Your task to perform on an android device: allow cookies in the chrome app Image 0: 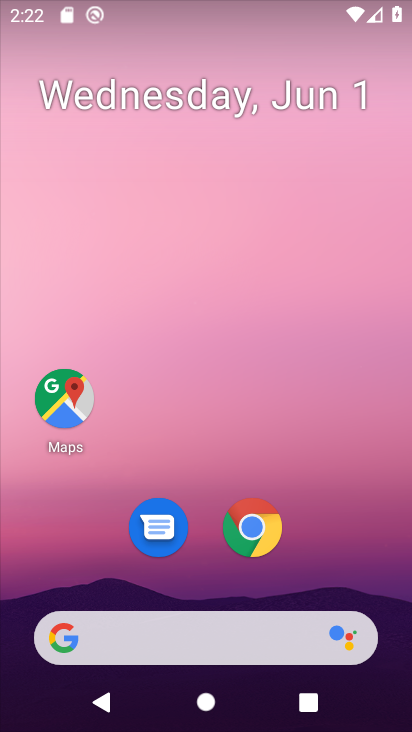
Step 0: click (260, 532)
Your task to perform on an android device: allow cookies in the chrome app Image 1: 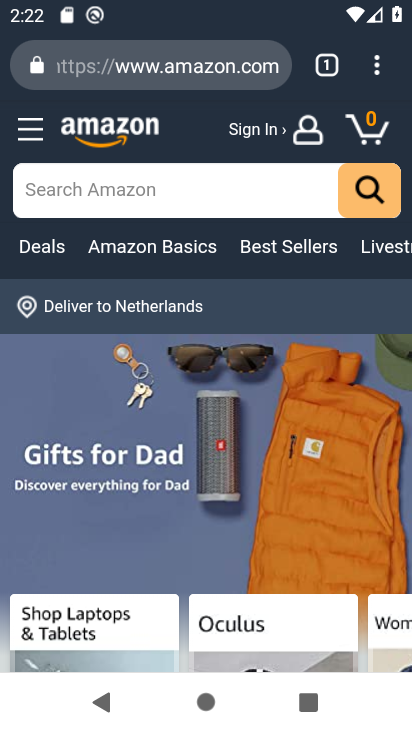
Step 1: click (376, 60)
Your task to perform on an android device: allow cookies in the chrome app Image 2: 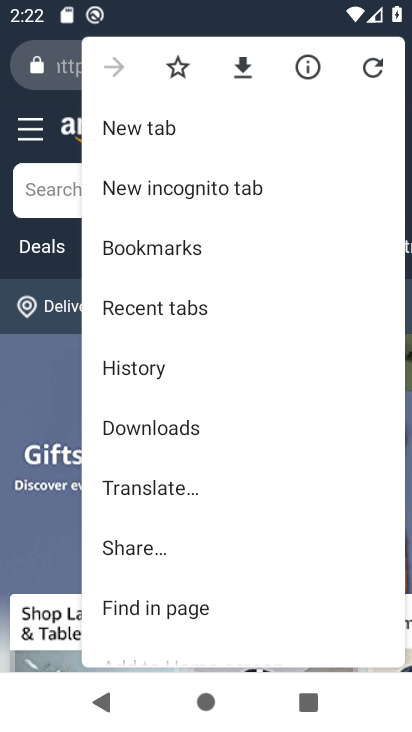
Step 2: drag from (144, 592) to (169, 375)
Your task to perform on an android device: allow cookies in the chrome app Image 3: 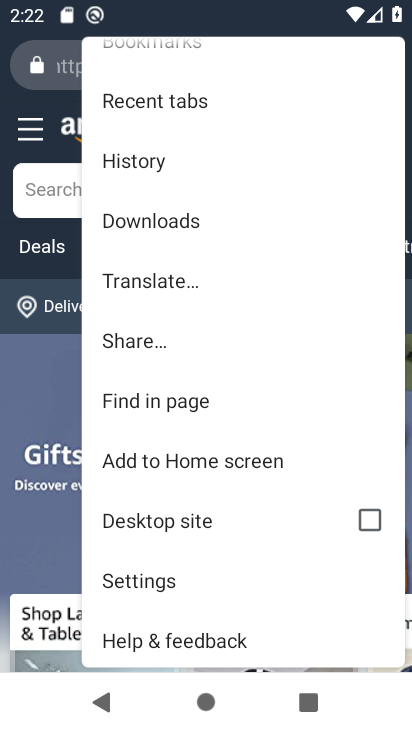
Step 3: drag from (140, 605) to (165, 424)
Your task to perform on an android device: allow cookies in the chrome app Image 4: 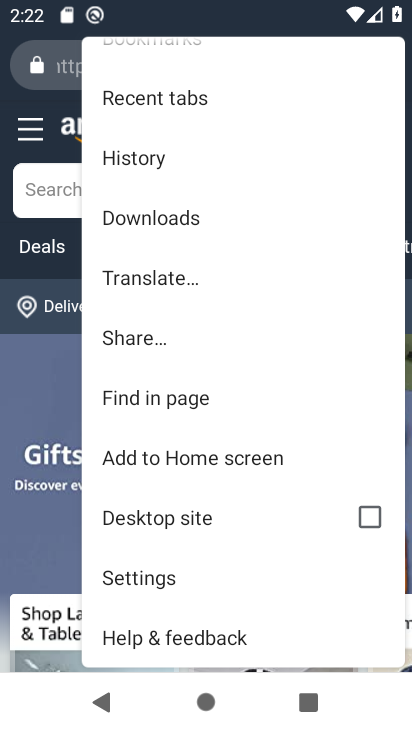
Step 4: click (166, 582)
Your task to perform on an android device: allow cookies in the chrome app Image 5: 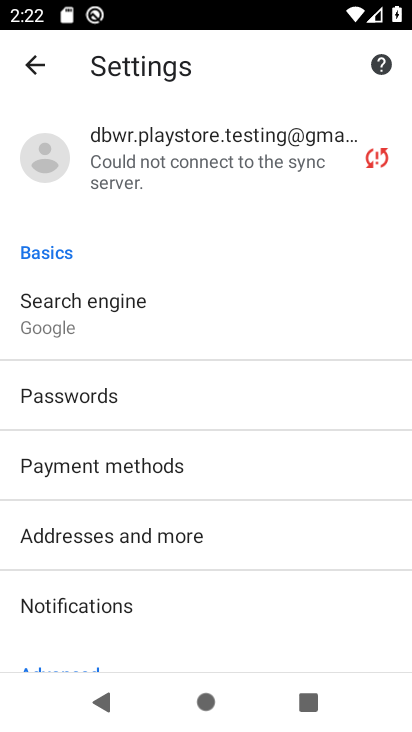
Step 5: drag from (129, 498) to (200, 91)
Your task to perform on an android device: allow cookies in the chrome app Image 6: 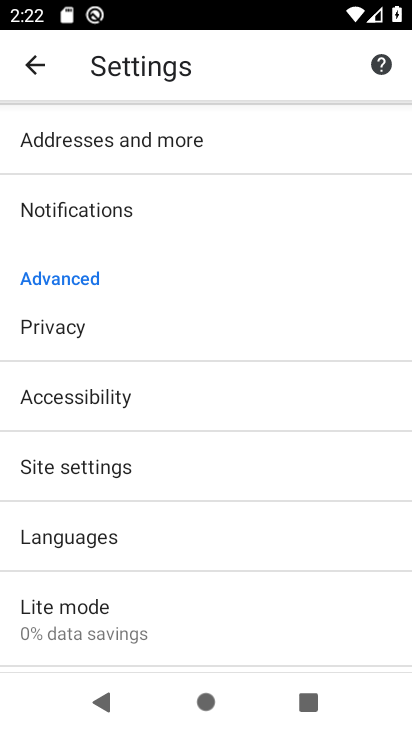
Step 6: click (70, 481)
Your task to perform on an android device: allow cookies in the chrome app Image 7: 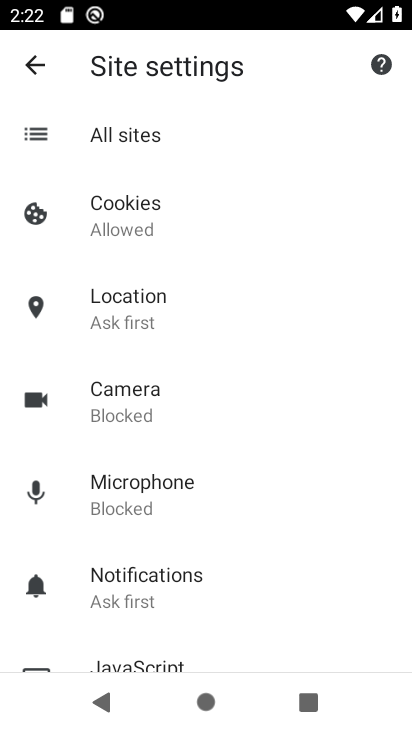
Step 7: click (149, 231)
Your task to perform on an android device: allow cookies in the chrome app Image 8: 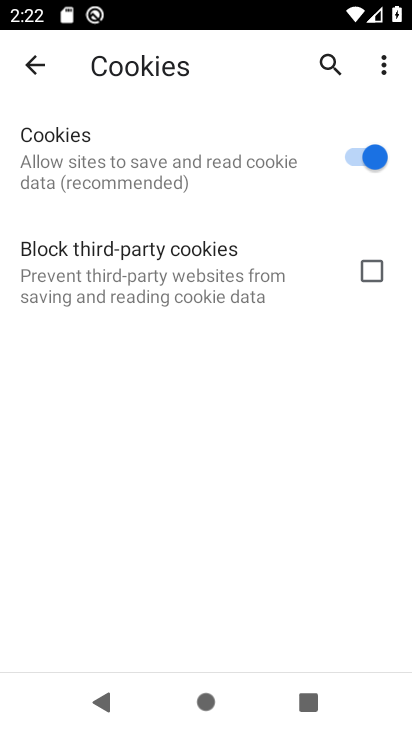
Step 8: task complete